Your task to perform on an android device: turn off location Image 0: 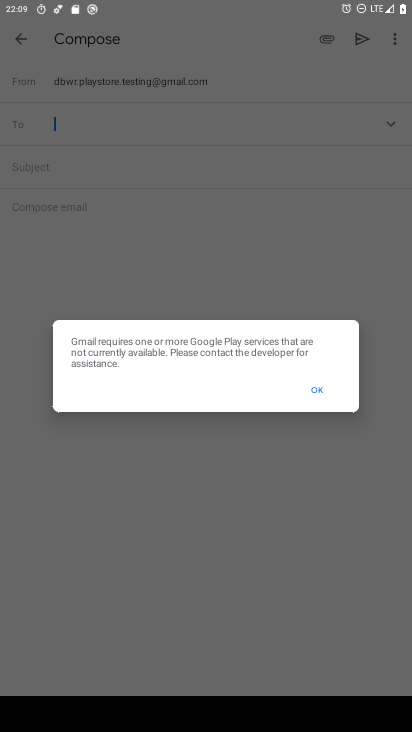
Step 0: press home button
Your task to perform on an android device: turn off location Image 1: 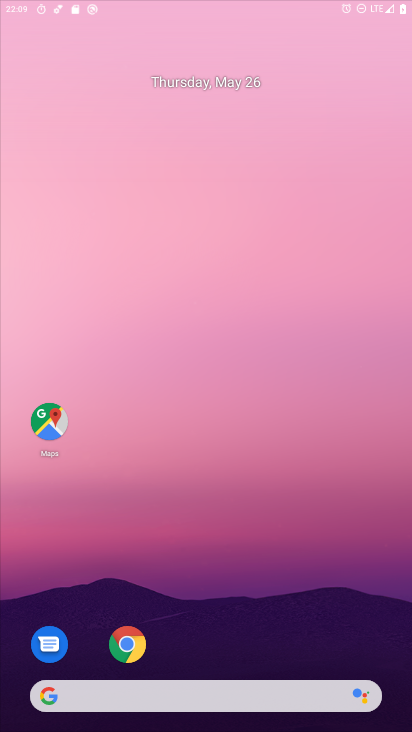
Step 1: drag from (230, 588) to (320, 72)
Your task to perform on an android device: turn off location Image 2: 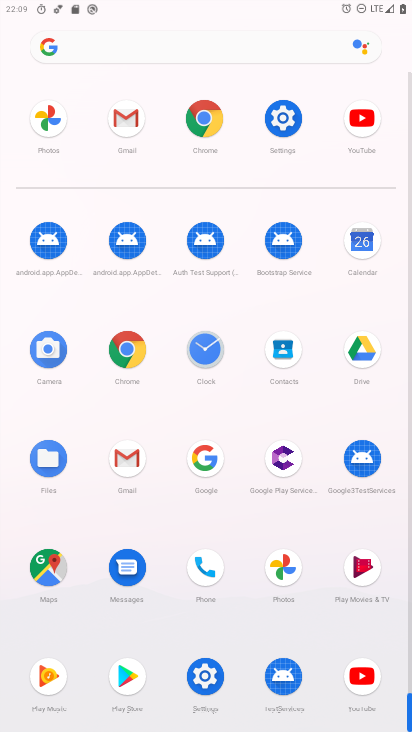
Step 2: click (203, 669)
Your task to perform on an android device: turn off location Image 3: 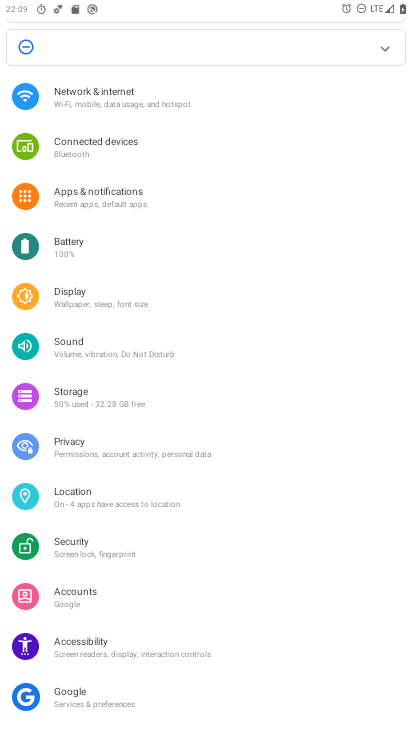
Step 3: click (115, 507)
Your task to perform on an android device: turn off location Image 4: 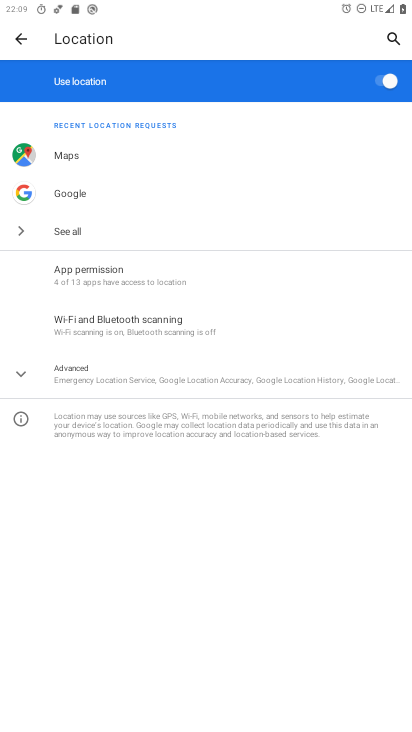
Step 4: click (388, 80)
Your task to perform on an android device: turn off location Image 5: 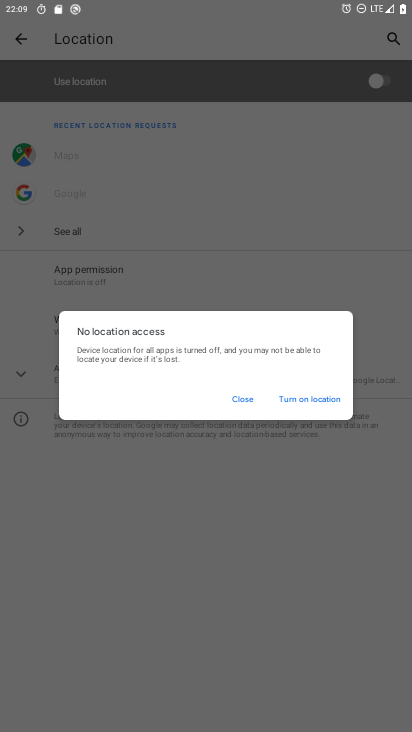
Step 5: click (241, 401)
Your task to perform on an android device: turn off location Image 6: 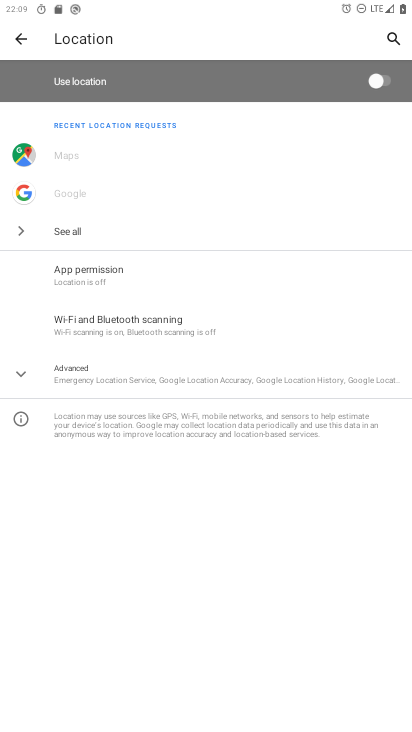
Step 6: task complete